Your task to perform on an android device: choose inbox layout in the gmail app Image 0: 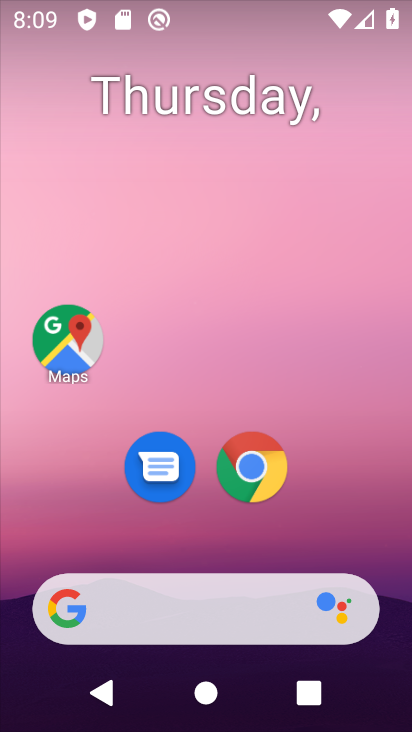
Step 0: drag from (230, 567) to (266, 104)
Your task to perform on an android device: choose inbox layout in the gmail app Image 1: 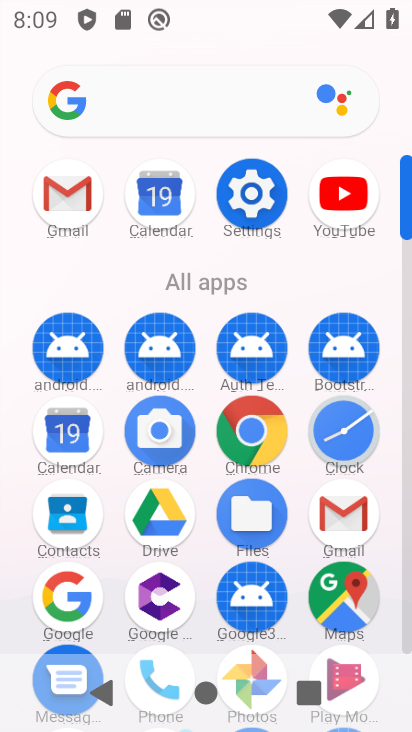
Step 1: click (72, 187)
Your task to perform on an android device: choose inbox layout in the gmail app Image 2: 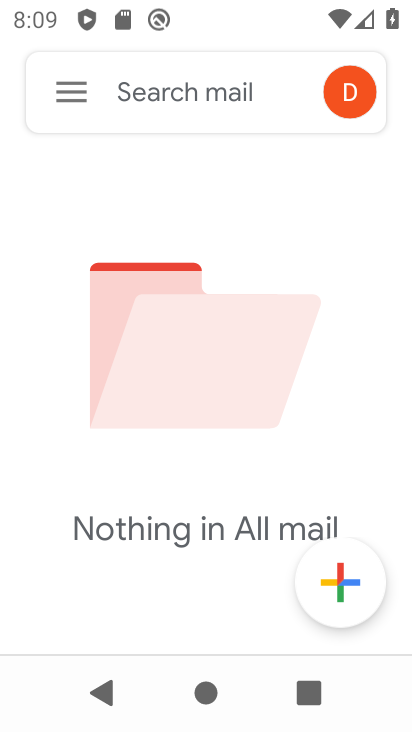
Step 2: click (73, 95)
Your task to perform on an android device: choose inbox layout in the gmail app Image 3: 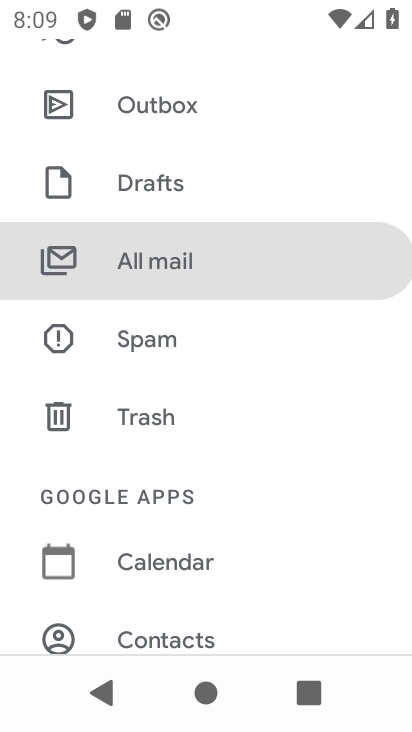
Step 3: drag from (132, 586) to (239, 60)
Your task to perform on an android device: choose inbox layout in the gmail app Image 4: 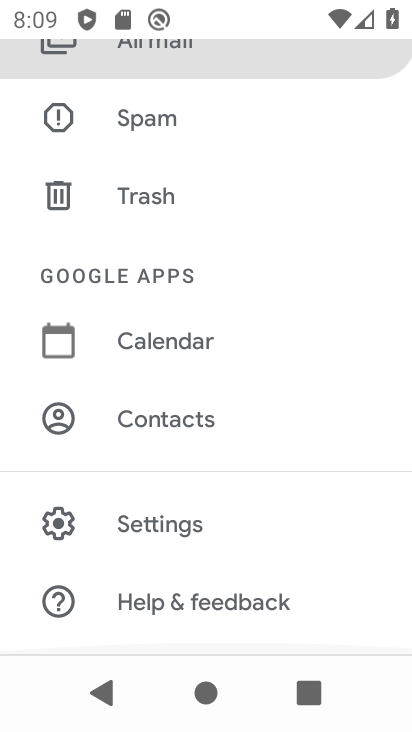
Step 4: click (145, 523)
Your task to perform on an android device: choose inbox layout in the gmail app Image 5: 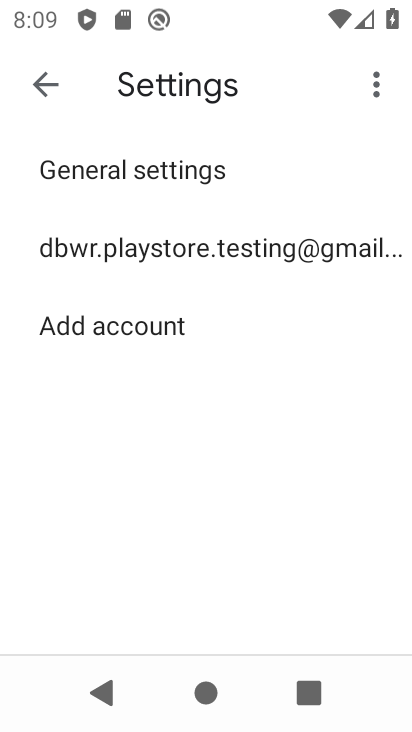
Step 5: click (135, 257)
Your task to perform on an android device: choose inbox layout in the gmail app Image 6: 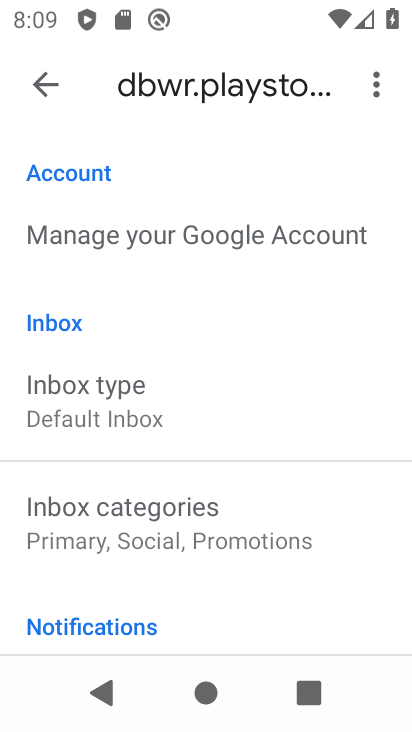
Step 6: click (112, 398)
Your task to perform on an android device: choose inbox layout in the gmail app Image 7: 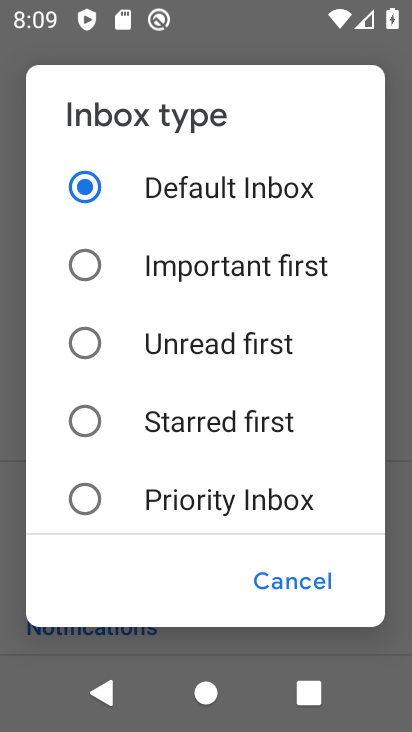
Step 7: click (86, 285)
Your task to perform on an android device: choose inbox layout in the gmail app Image 8: 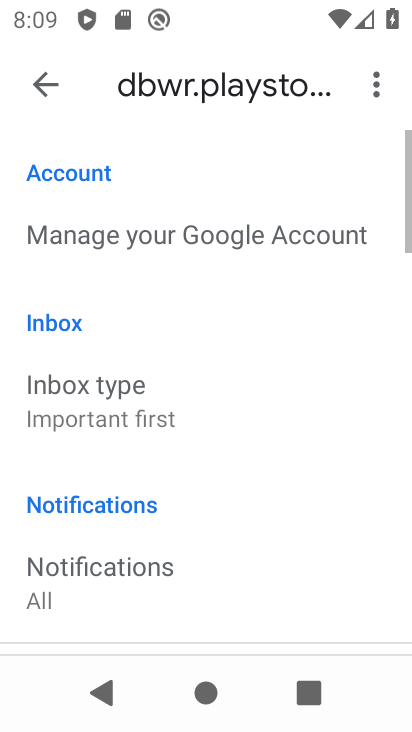
Step 8: task complete